Your task to perform on an android device: Open Yahoo.com Image 0: 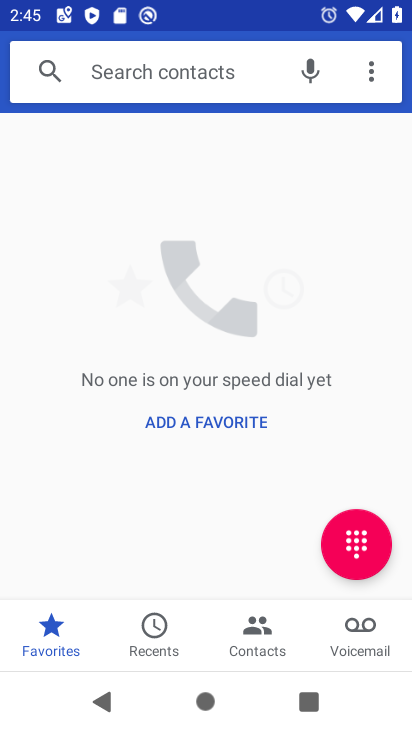
Step 0: press home button
Your task to perform on an android device: Open Yahoo.com Image 1: 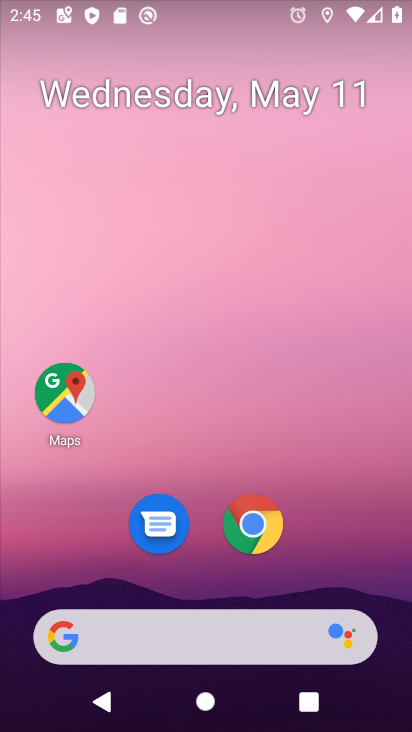
Step 1: click (236, 650)
Your task to perform on an android device: Open Yahoo.com Image 2: 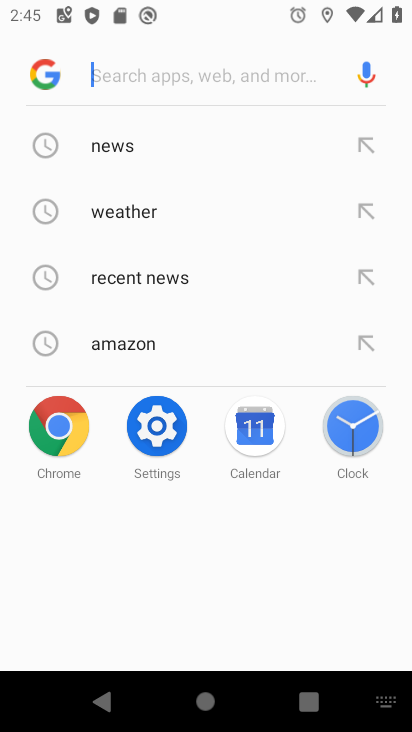
Step 2: type "yahoo.com"
Your task to perform on an android device: Open Yahoo.com Image 3: 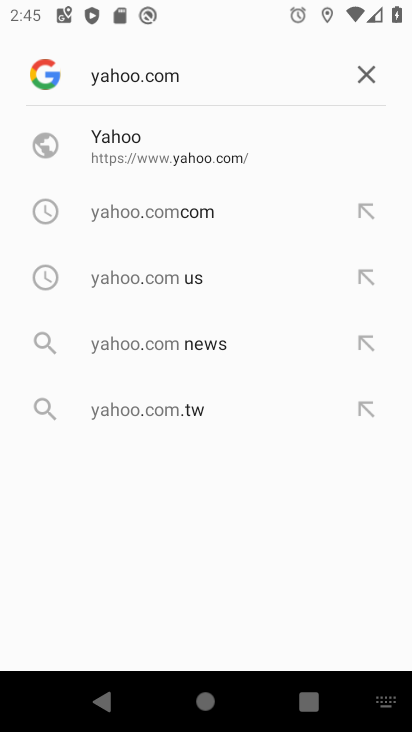
Step 3: click (111, 147)
Your task to perform on an android device: Open Yahoo.com Image 4: 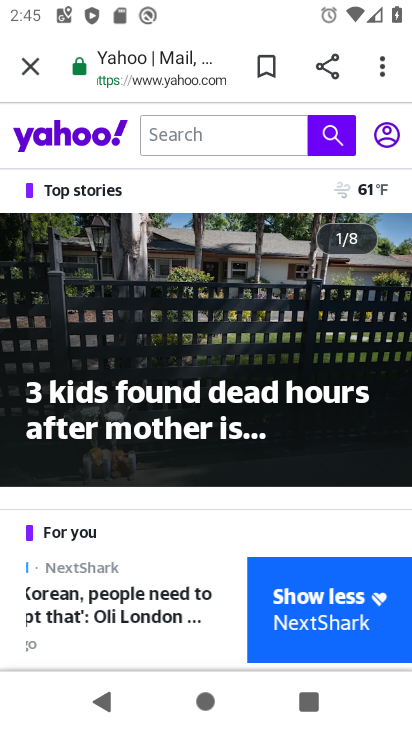
Step 4: task complete